Your task to perform on an android device: turn off location Image 0: 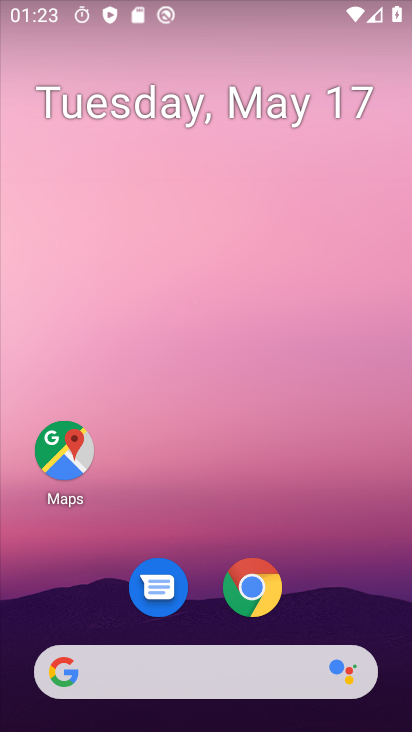
Step 0: drag from (343, 567) to (380, 106)
Your task to perform on an android device: turn off location Image 1: 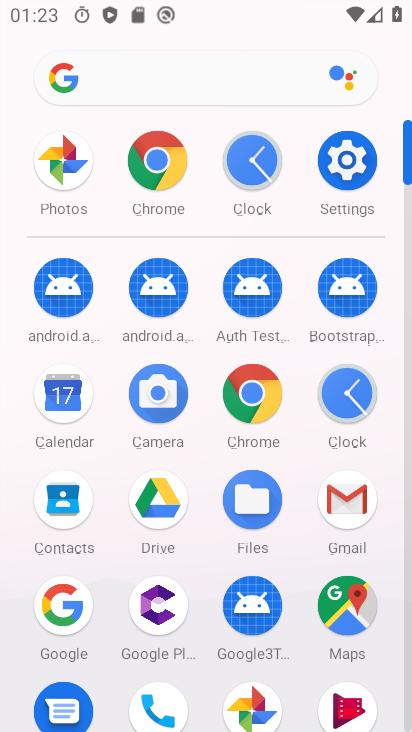
Step 1: click (377, 188)
Your task to perform on an android device: turn off location Image 2: 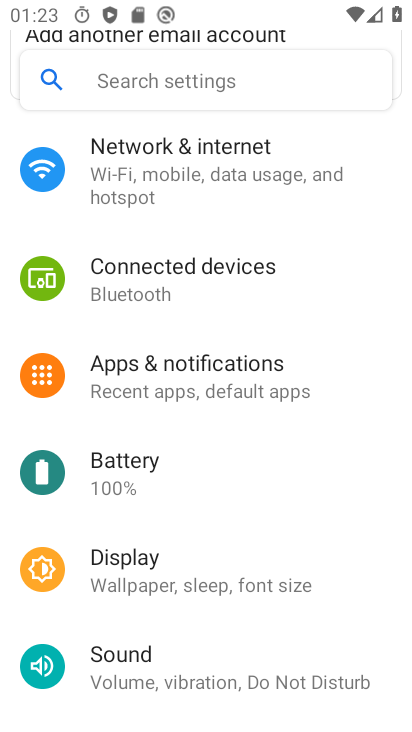
Step 2: drag from (283, 622) to (291, 204)
Your task to perform on an android device: turn off location Image 3: 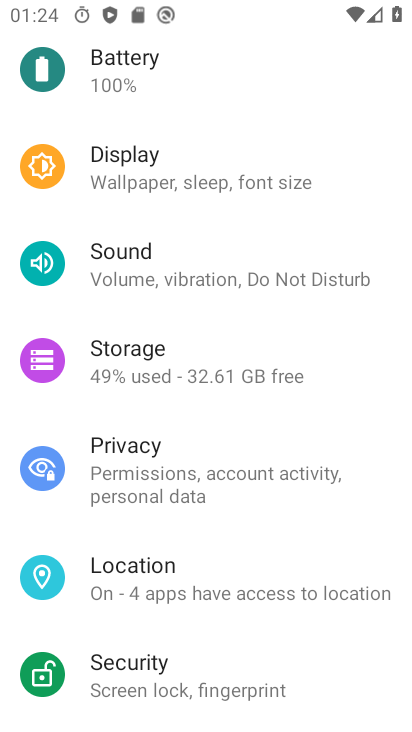
Step 3: click (233, 545)
Your task to perform on an android device: turn off location Image 4: 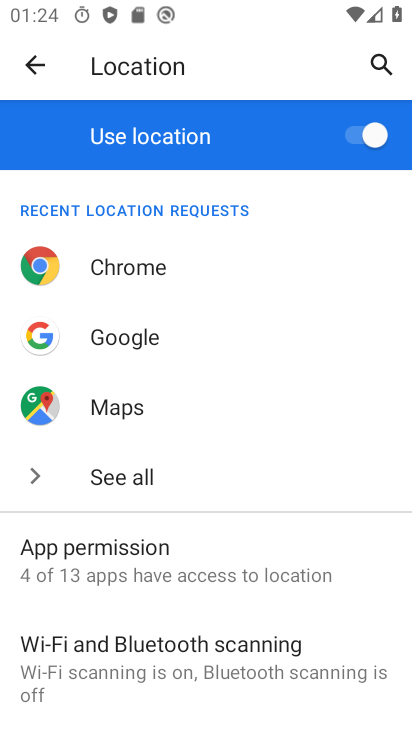
Step 4: click (350, 132)
Your task to perform on an android device: turn off location Image 5: 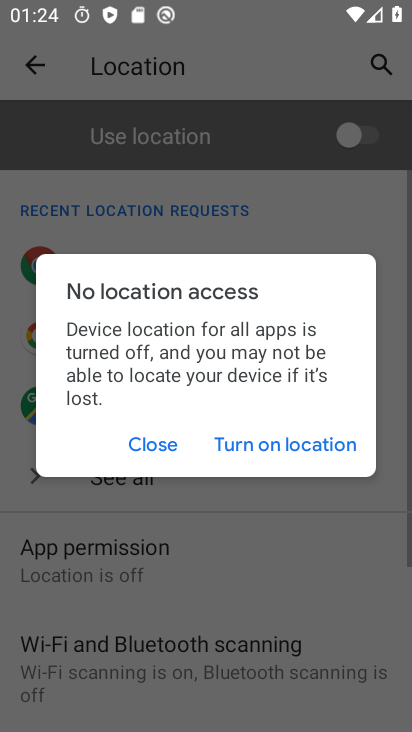
Step 5: task complete